Your task to perform on an android device: turn pop-ups on in chrome Image 0: 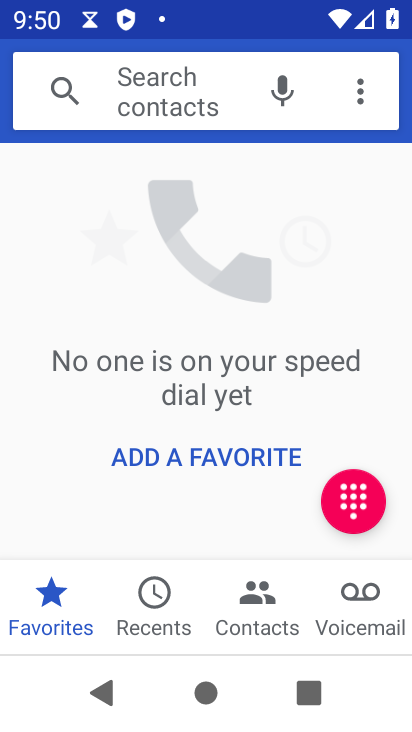
Step 0: press home button
Your task to perform on an android device: turn pop-ups on in chrome Image 1: 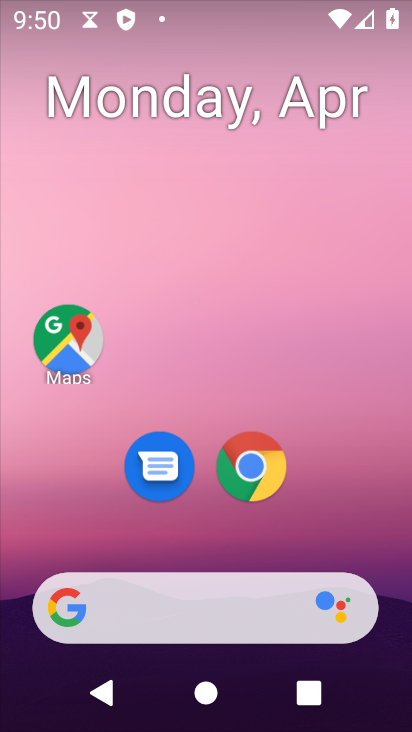
Step 1: click (252, 471)
Your task to perform on an android device: turn pop-ups on in chrome Image 2: 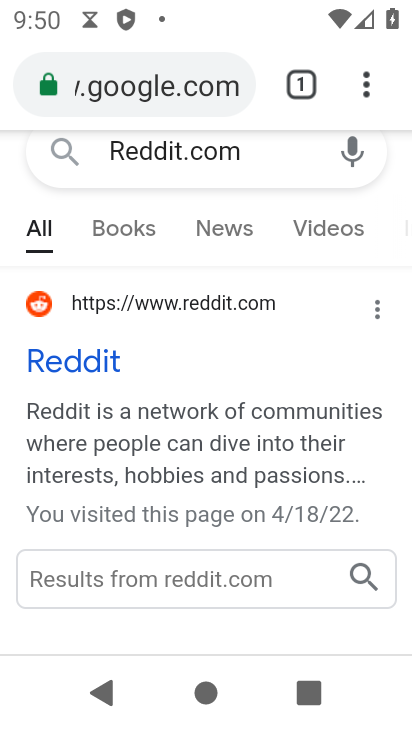
Step 2: click (367, 77)
Your task to perform on an android device: turn pop-ups on in chrome Image 3: 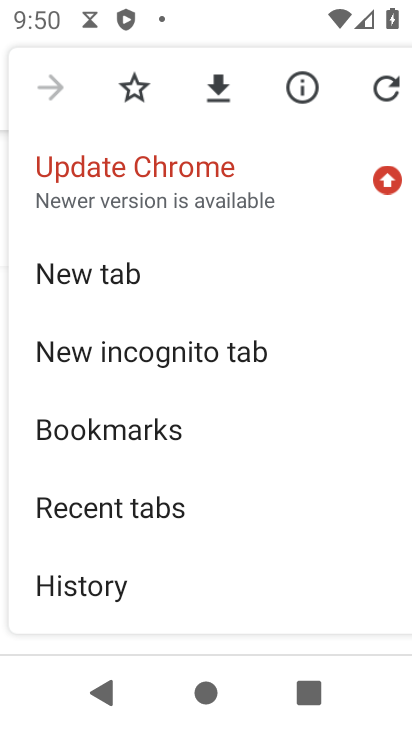
Step 3: drag from (108, 547) to (160, 380)
Your task to perform on an android device: turn pop-ups on in chrome Image 4: 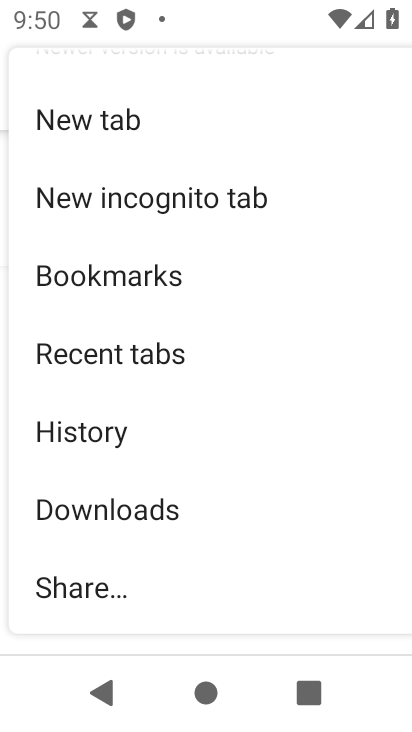
Step 4: drag from (197, 559) to (203, 435)
Your task to perform on an android device: turn pop-ups on in chrome Image 5: 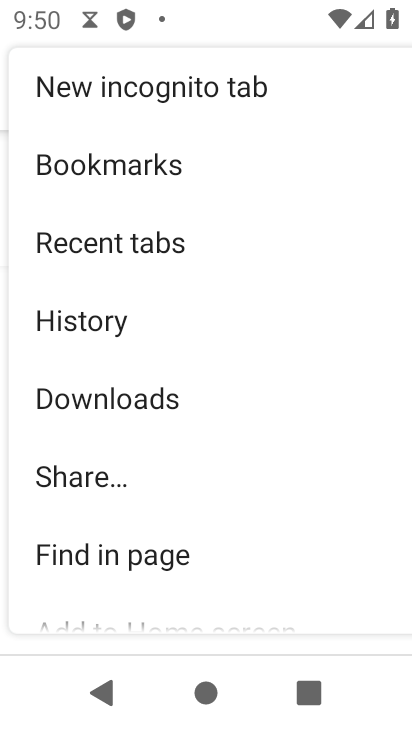
Step 5: drag from (195, 527) to (227, 455)
Your task to perform on an android device: turn pop-ups on in chrome Image 6: 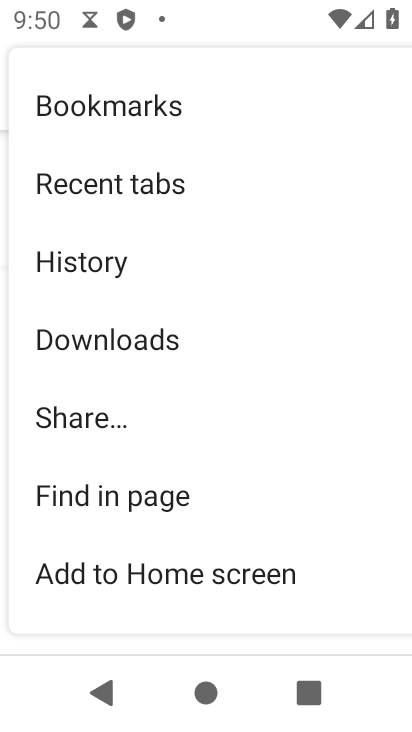
Step 6: drag from (240, 525) to (251, 448)
Your task to perform on an android device: turn pop-ups on in chrome Image 7: 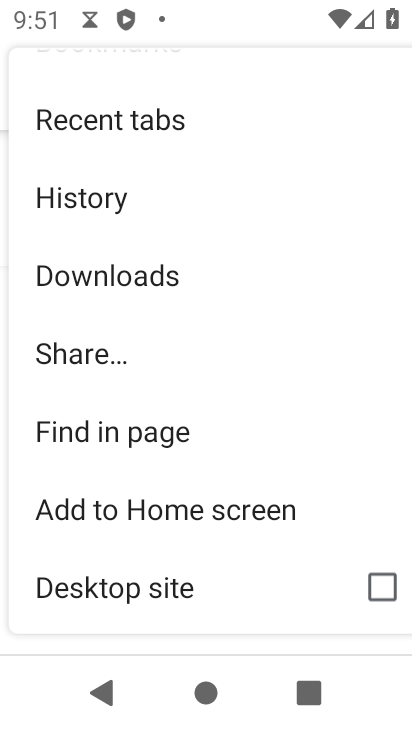
Step 7: drag from (247, 585) to (281, 481)
Your task to perform on an android device: turn pop-ups on in chrome Image 8: 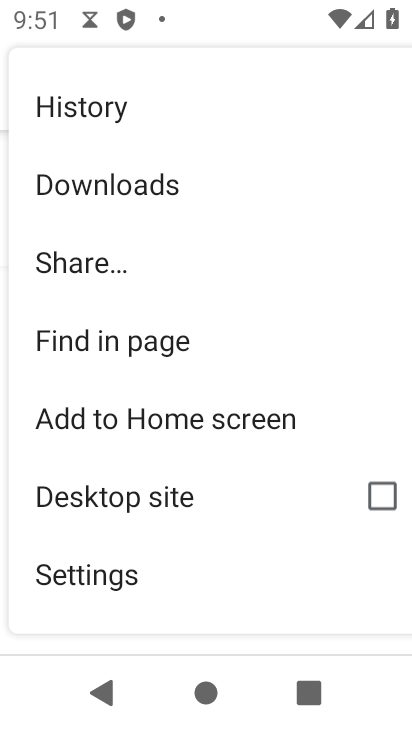
Step 8: click (98, 573)
Your task to perform on an android device: turn pop-ups on in chrome Image 9: 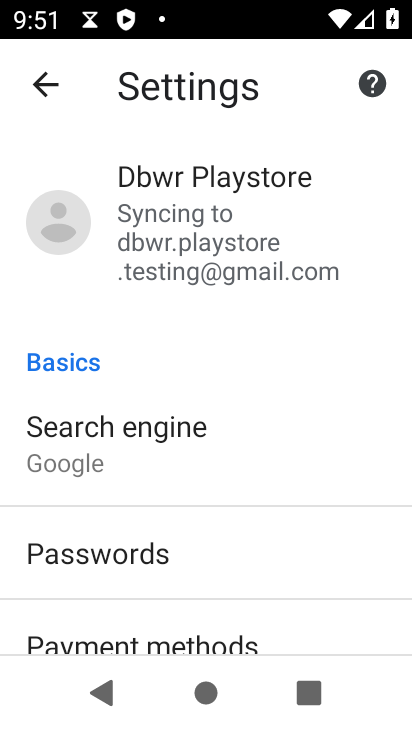
Step 9: drag from (192, 575) to (244, 432)
Your task to perform on an android device: turn pop-ups on in chrome Image 10: 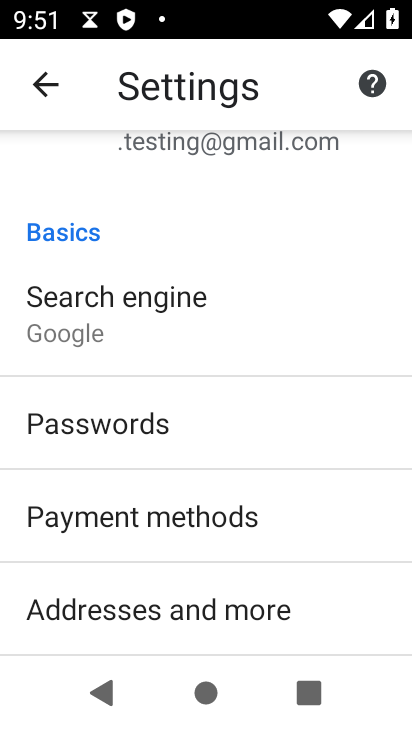
Step 10: drag from (217, 550) to (269, 392)
Your task to perform on an android device: turn pop-ups on in chrome Image 11: 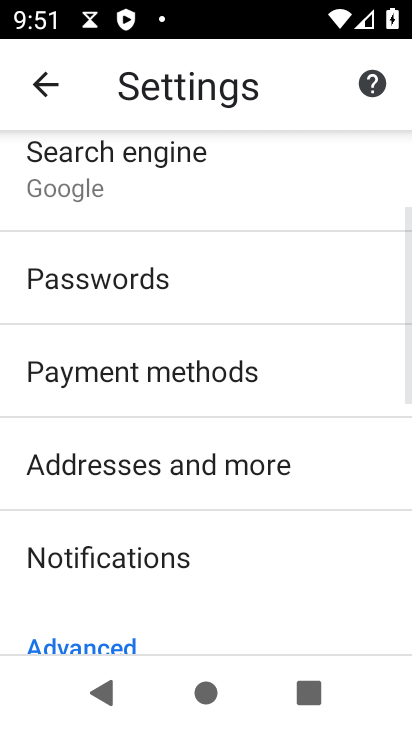
Step 11: drag from (198, 561) to (267, 399)
Your task to perform on an android device: turn pop-ups on in chrome Image 12: 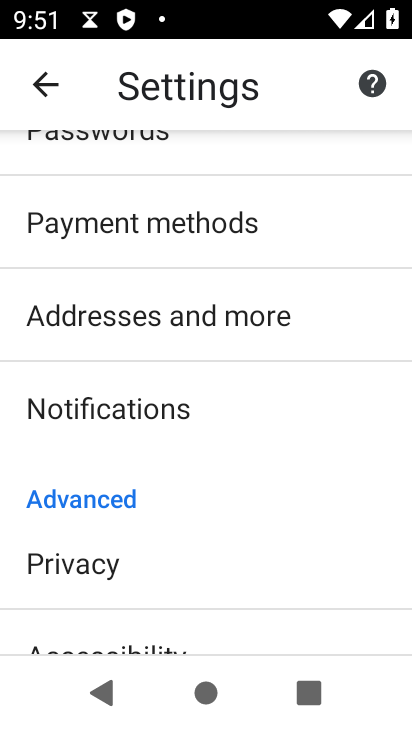
Step 12: drag from (228, 508) to (277, 354)
Your task to perform on an android device: turn pop-ups on in chrome Image 13: 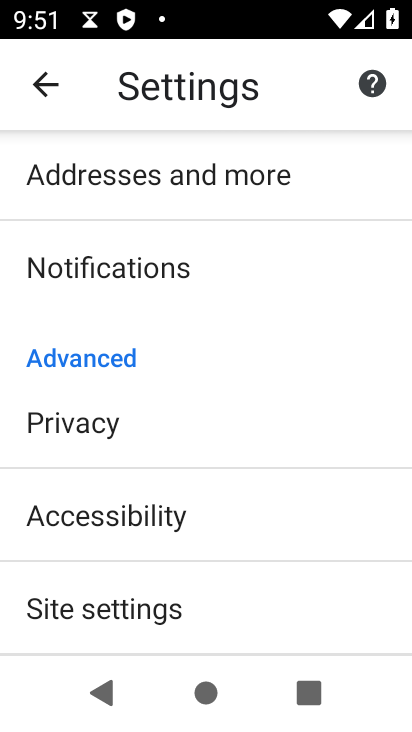
Step 13: drag from (196, 570) to (252, 442)
Your task to perform on an android device: turn pop-ups on in chrome Image 14: 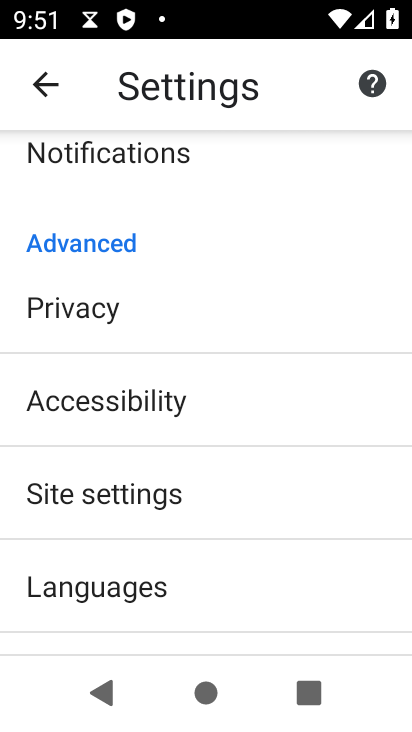
Step 14: drag from (190, 569) to (260, 433)
Your task to perform on an android device: turn pop-ups on in chrome Image 15: 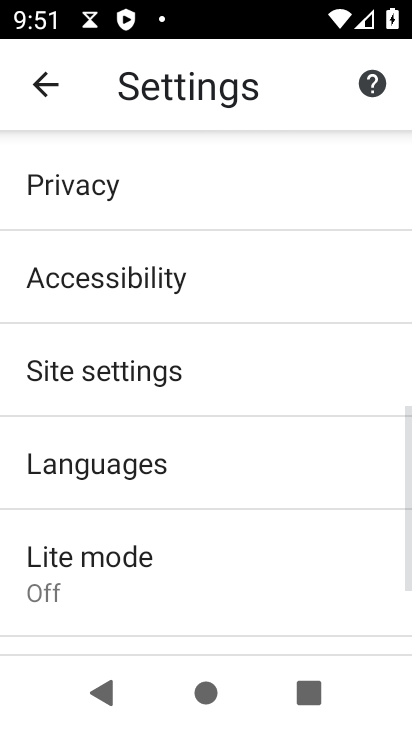
Step 15: drag from (198, 567) to (265, 454)
Your task to perform on an android device: turn pop-ups on in chrome Image 16: 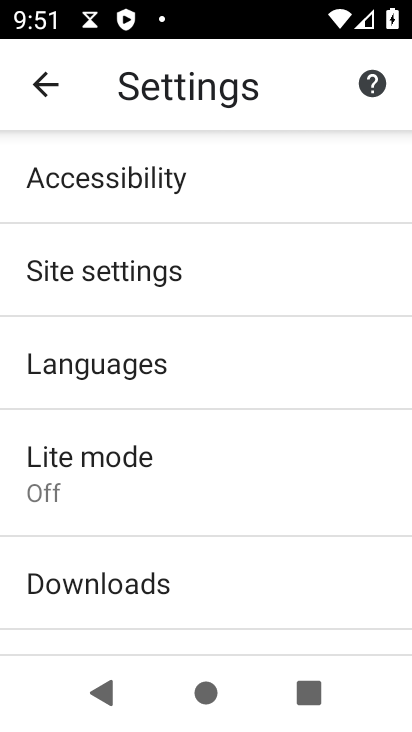
Step 16: click (102, 268)
Your task to perform on an android device: turn pop-ups on in chrome Image 17: 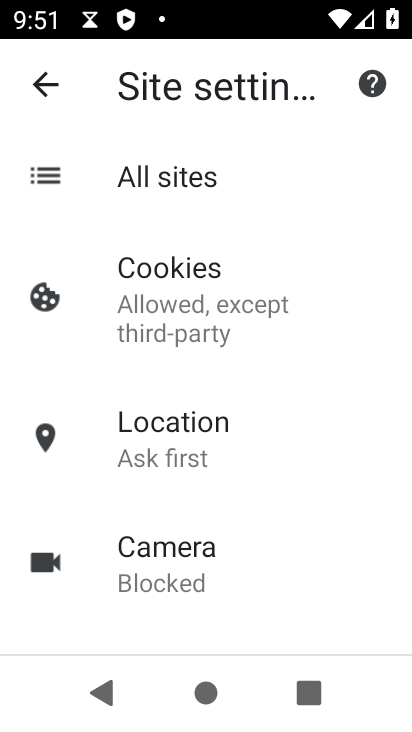
Step 17: drag from (230, 516) to (281, 398)
Your task to perform on an android device: turn pop-ups on in chrome Image 18: 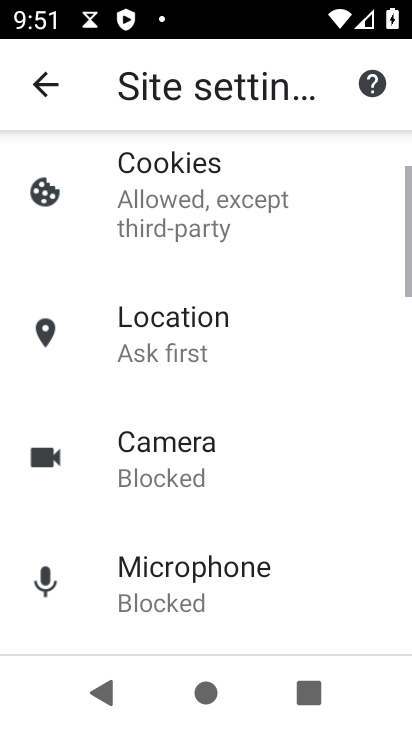
Step 18: drag from (235, 530) to (285, 385)
Your task to perform on an android device: turn pop-ups on in chrome Image 19: 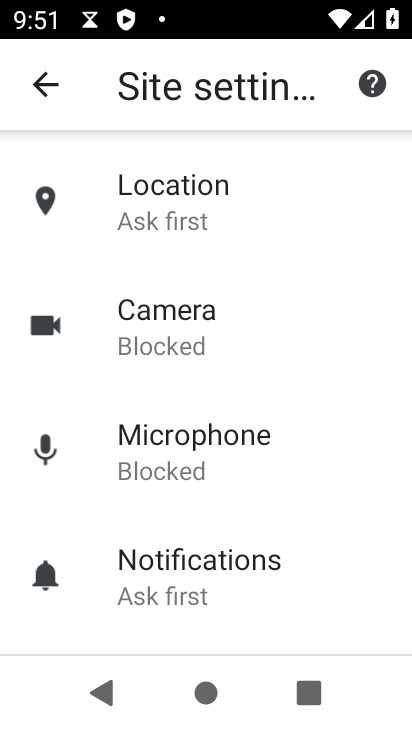
Step 19: drag from (226, 597) to (253, 473)
Your task to perform on an android device: turn pop-ups on in chrome Image 20: 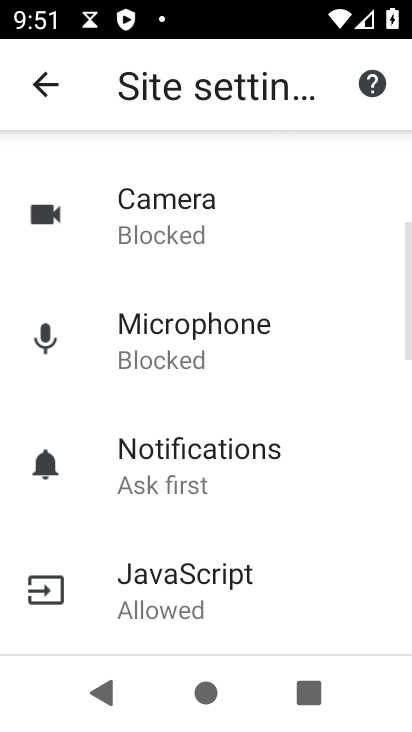
Step 20: drag from (234, 565) to (280, 454)
Your task to perform on an android device: turn pop-ups on in chrome Image 21: 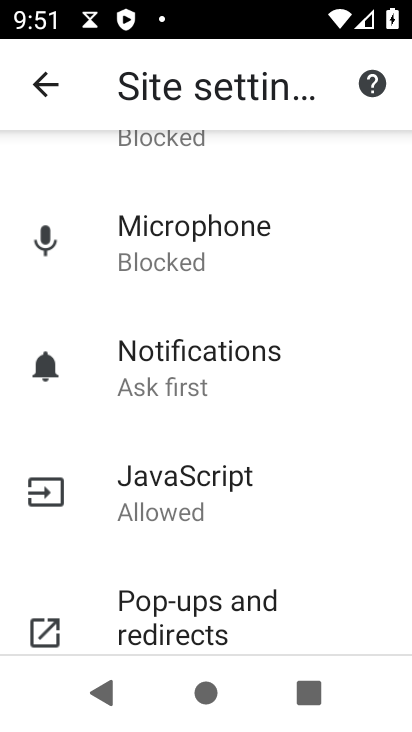
Step 21: drag from (252, 593) to (294, 475)
Your task to perform on an android device: turn pop-ups on in chrome Image 22: 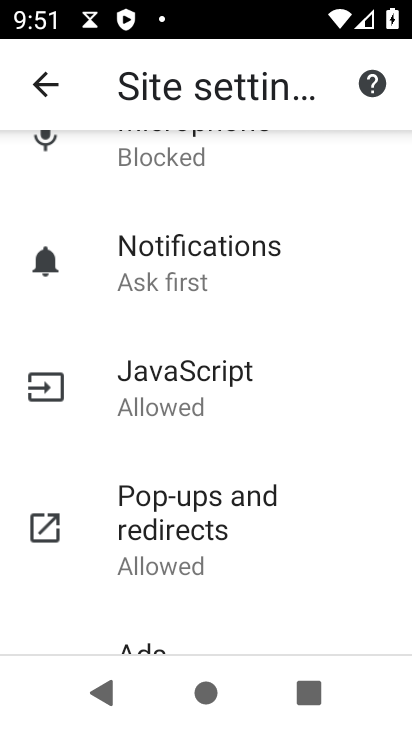
Step 22: click (274, 514)
Your task to perform on an android device: turn pop-ups on in chrome Image 23: 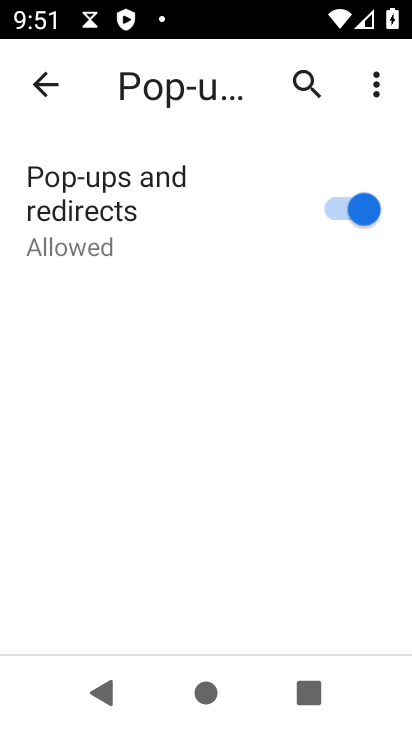
Step 23: task complete